Your task to perform on an android device: Go to privacy settings Image 0: 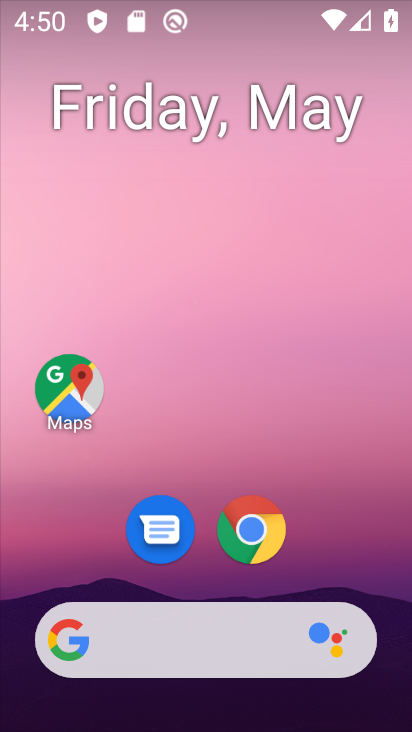
Step 0: click (350, 156)
Your task to perform on an android device: Go to privacy settings Image 1: 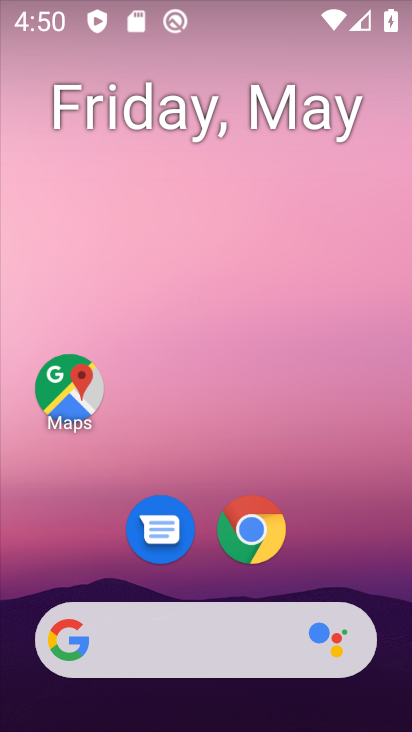
Step 1: drag from (364, 525) to (322, 113)
Your task to perform on an android device: Go to privacy settings Image 2: 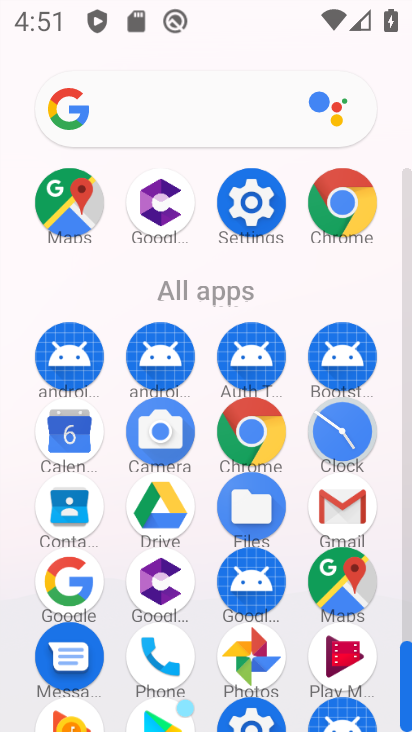
Step 2: click (245, 727)
Your task to perform on an android device: Go to privacy settings Image 3: 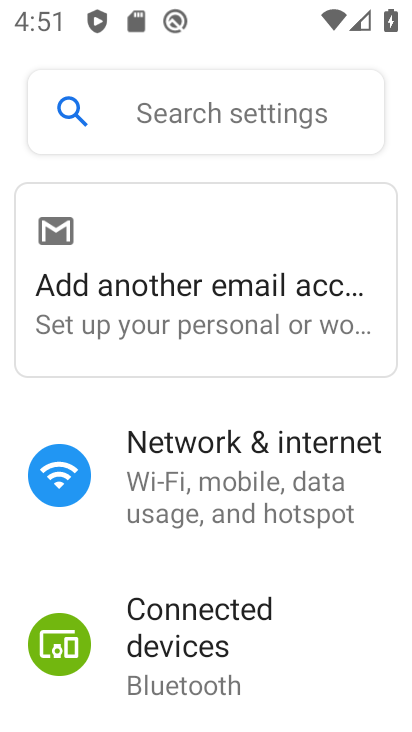
Step 3: drag from (353, 682) to (366, 108)
Your task to perform on an android device: Go to privacy settings Image 4: 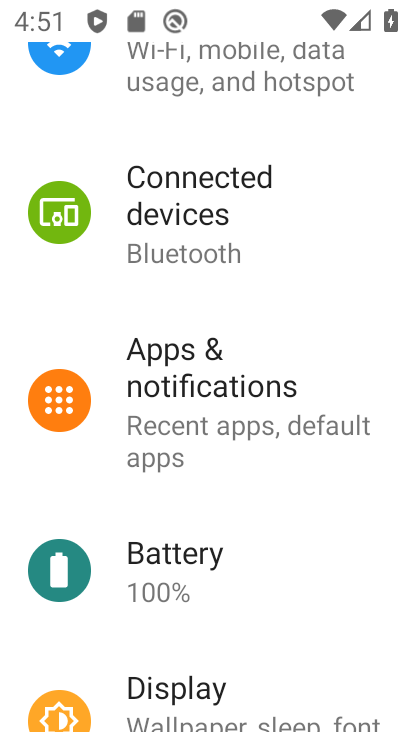
Step 4: drag from (326, 619) to (294, 382)
Your task to perform on an android device: Go to privacy settings Image 5: 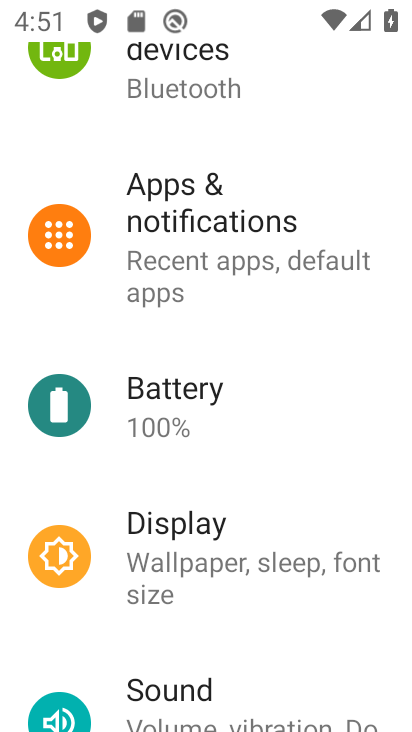
Step 5: drag from (282, 534) to (259, 210)
Your task to perform on an android device: Go to privacy settings Image 6: 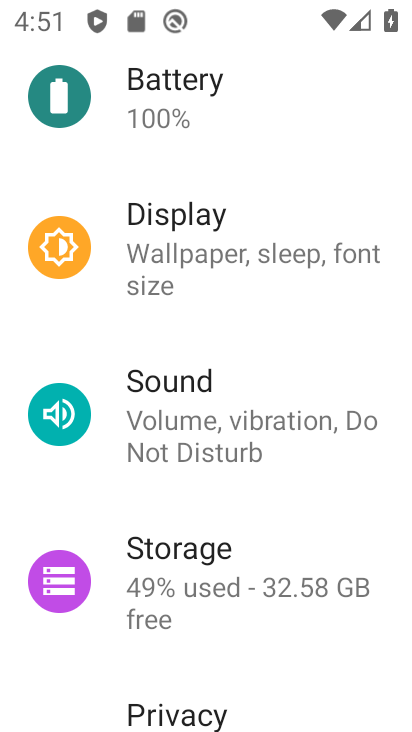
Step 6: drag from (365, 535) to (351, 272)
Your task to perform on an android device: Go to privacy settings Image 7: 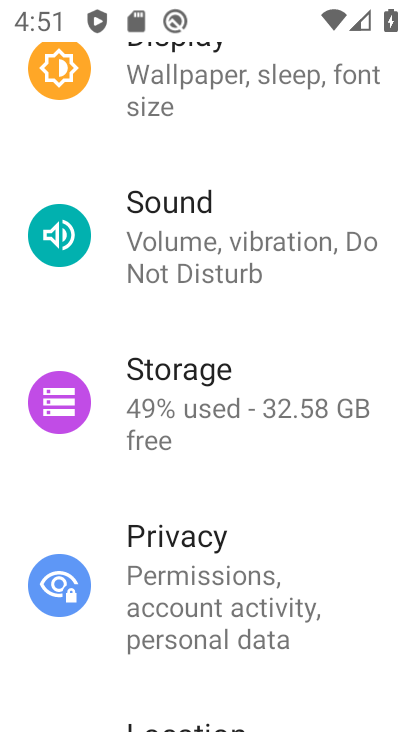
Step 7: drag from (292, 541) to (282, 237)
Your task to perform on an android device: Go to privacy settings Image 8: 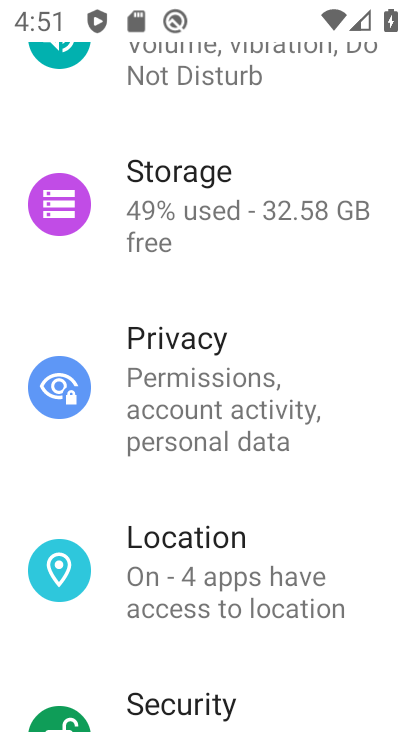
Step 8: click (227, 385)
Your task to perform on an android device: Go to privacy settings Image 9: 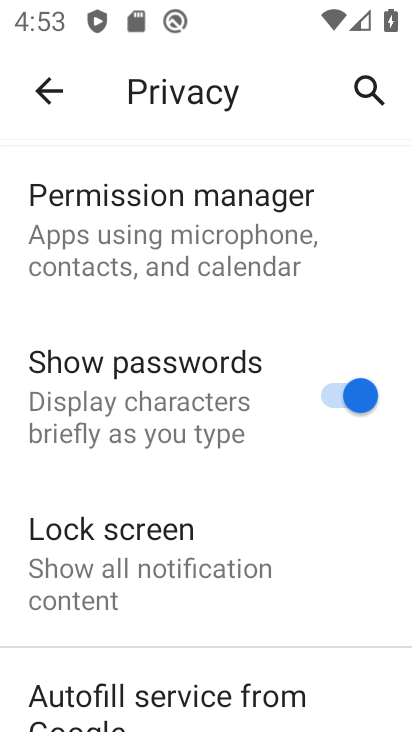
Step 9: task complete